Your task to perform on an android device: manage bookmarks in the chrome app Image 0: 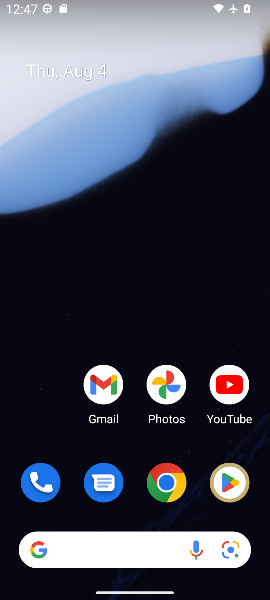
Step 0: click (165, 478)
Your task to perform on an android device: manage bookmarks in the chrome app Image 1: 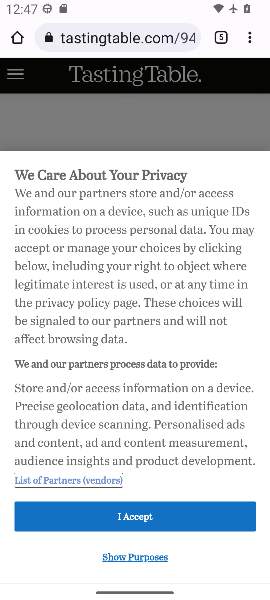
Step 1: click (254, 47)
Your task to perform on an android device: manage bookmarks in the chrome app Image 2: 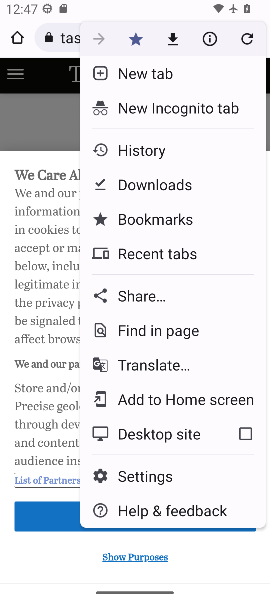
Step 2: click (159, 212)
Your task to perform on an android device: manage bookmarks in the chrome app Image 3: 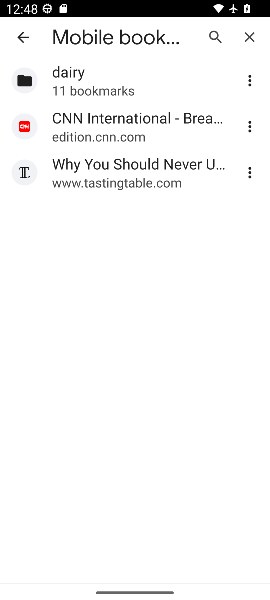
Step 3: click (246, 169)
Your task to perform on an android device: manage bookmarks in the chrome app Image 4: 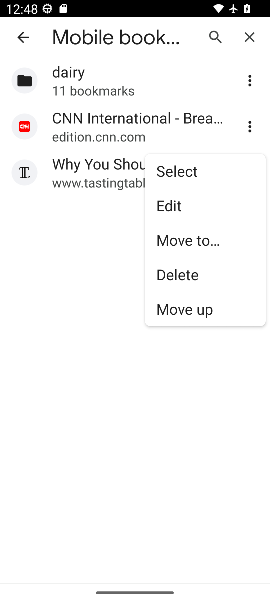
Step 4: click (188, 265)
Your task to perform on an android device: manage bookmarks in the chrome app Image 5: 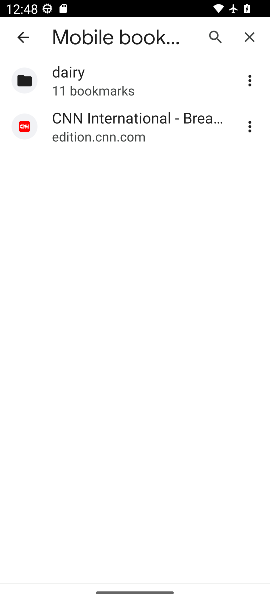
Step 5: task complete